Your task to perform on an android device: open sync settings in chrome Image 0: 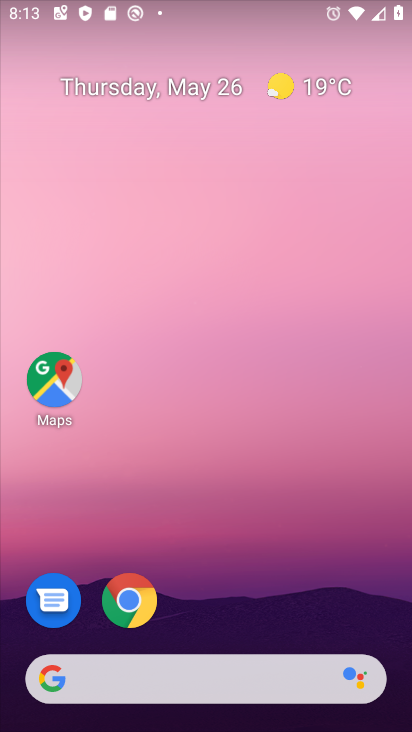
Step 0: press home button
Your task to perform on an android device: open sync settings in chrome Image 1: 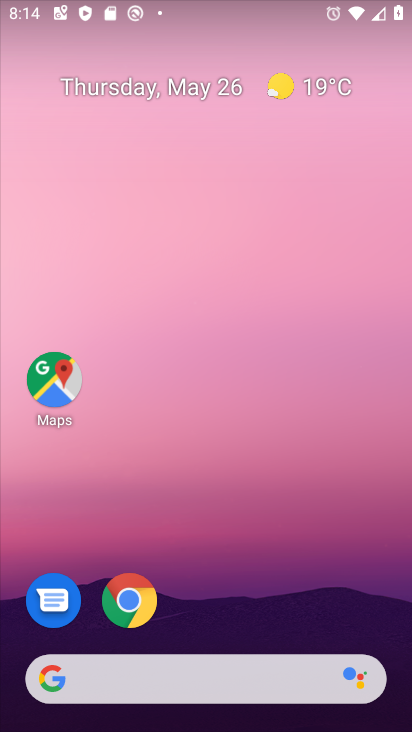
Step 1: click (133, 605)
Your task to perform on an android device: open sync settings in chrome Image 2: 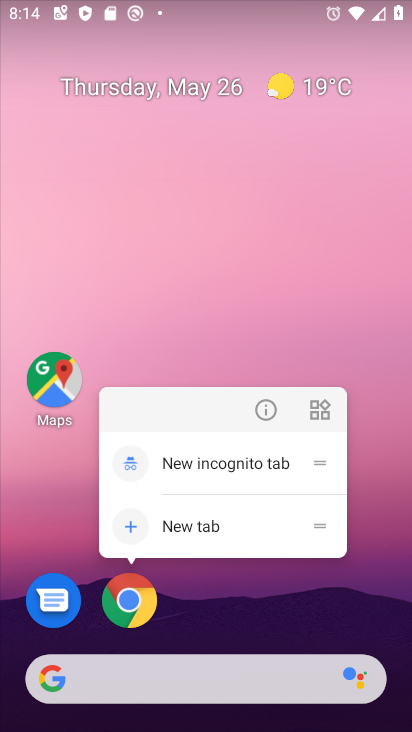
Step 2: click (136, 600)
Your task to perform on an android device: open sync settings in chrome Image 3: 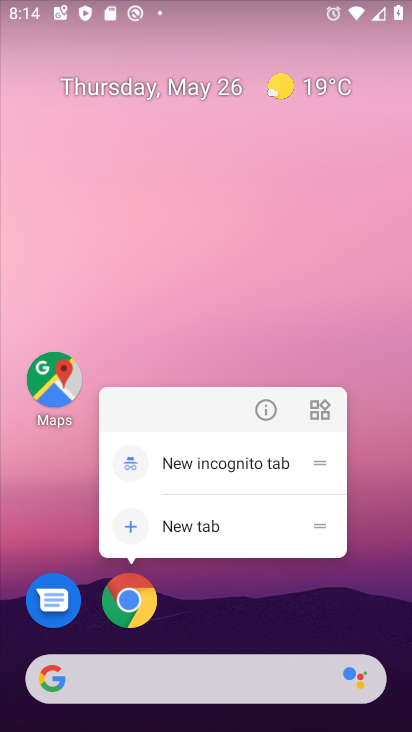
Step 3: click (269, 608)
Your task to perform on an android device: open sync settings in chrome Image 4: 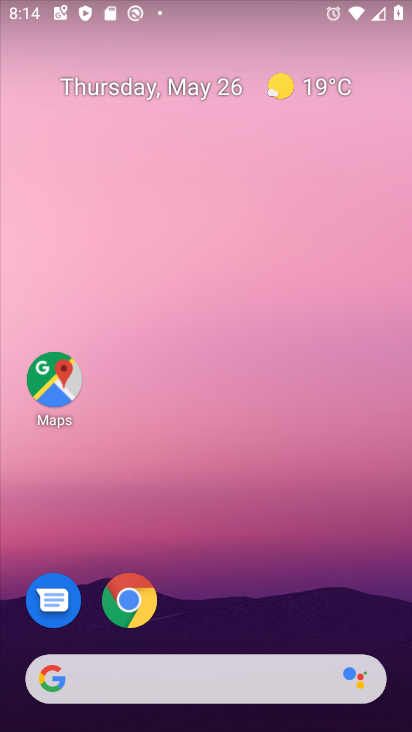
Step 4: drag from (278, 606) to (250, 204)
Your task to perform on an android device: open sync settings in chrome Image 5: 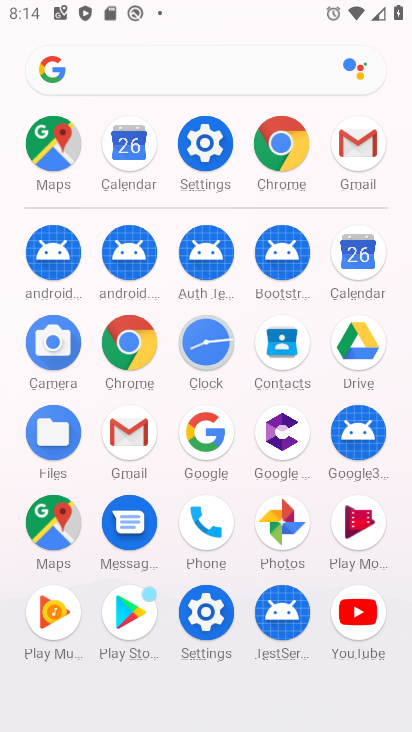
Step 5: click (274, 156)
Your task to perform on an android device: open sync settings in chrome Image 6: 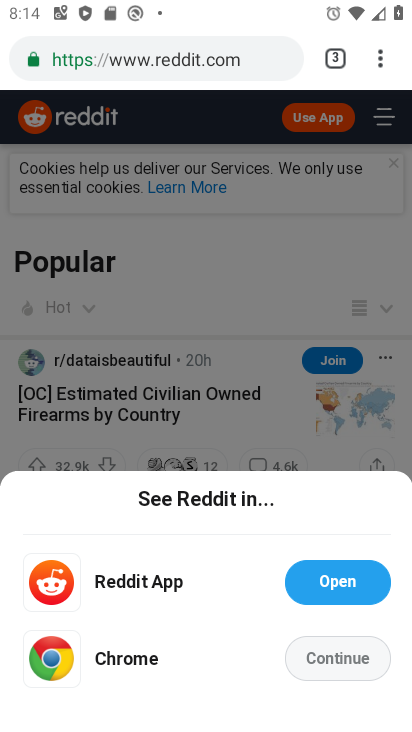
Step 6: drag from (382, 63) to (171, 646)
Your task to perform on an android device: open sync settings in chrome Image 7: 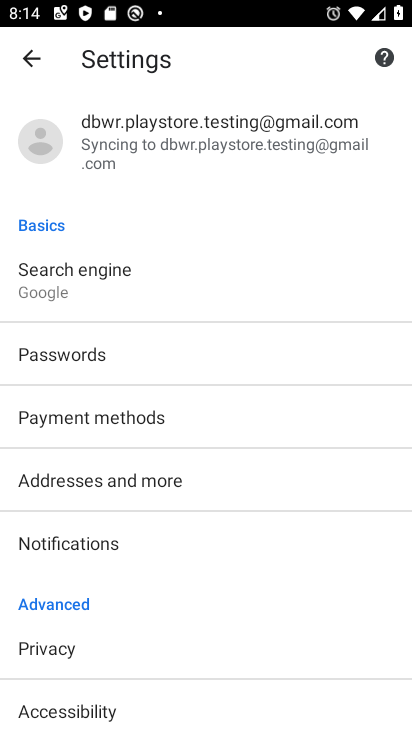
Step 7: click (192, 129)
Your task to perform on an android device: open sync settings in chrome Image 8: 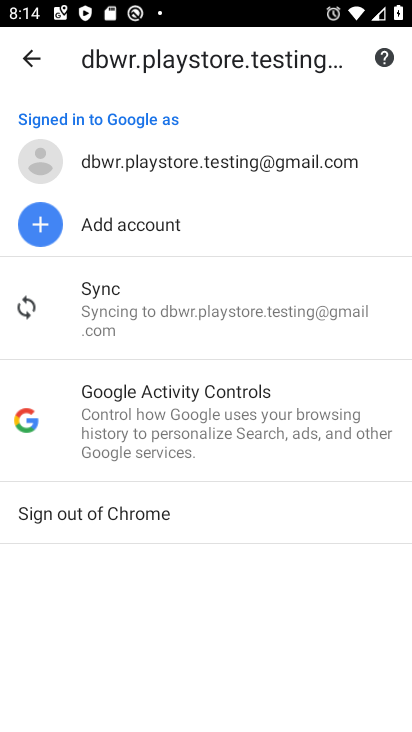
Step 8: click (171, 317)
Your task to perform on an android device: open sync settings in chrome Image 9: 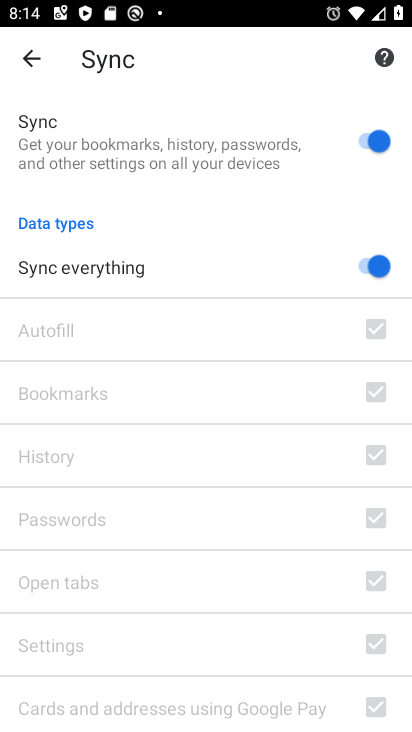
Step 9: task complete